Your task to perform on an android device: Search for seafood restaurants on Google Maps Image 0: 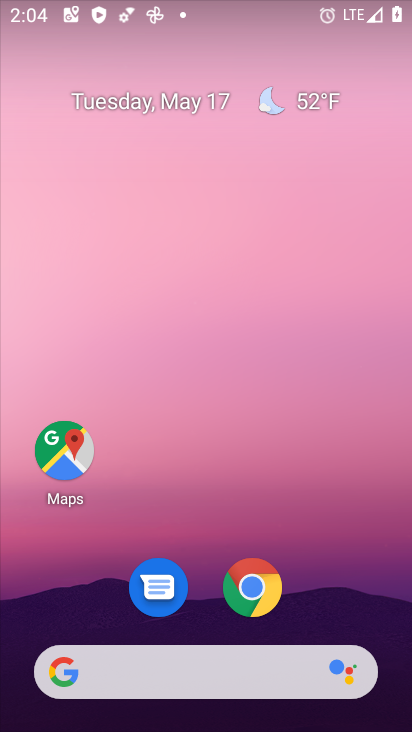
Step 0: click (48, 474)
Your task to perform on an android device: Search for seafood restaurants on Google Maps Image 1: 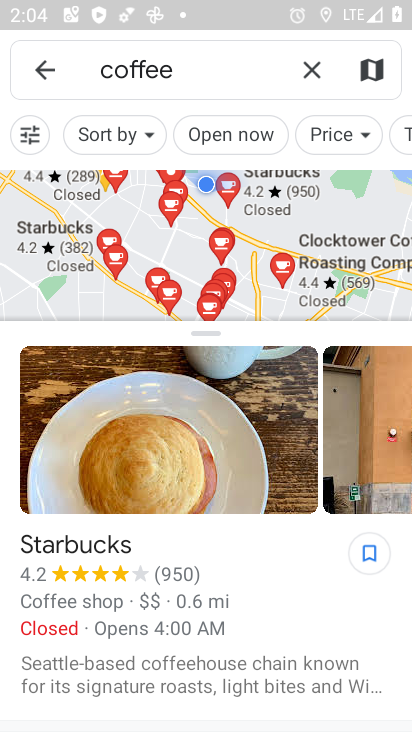
Step 1: click (309, 59)
Your task to perform on an android device: Search for seafood restaurants on Google Maps Image 2: 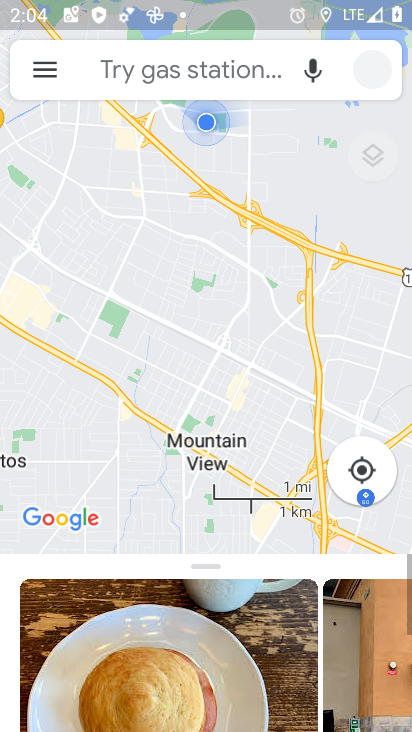
Step 2: click (309, 59)
Your task to perform on an android device: Search for seafood restaurants on Google Maps Image 3: 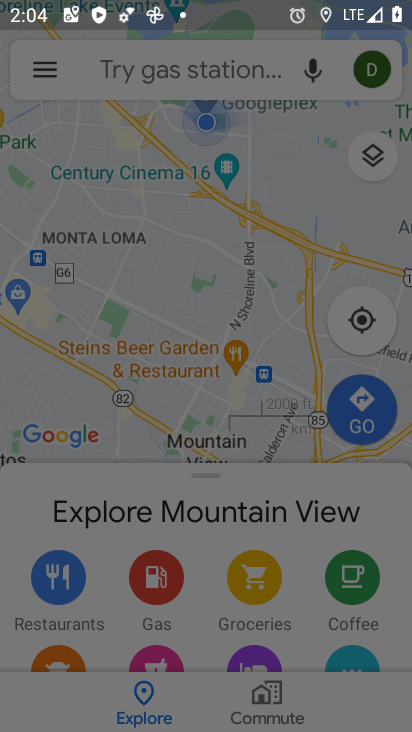
Step 3: click (203, 74)
Your task to perform on an android device: Search for seafood restaurants on Google Maps Image 4: 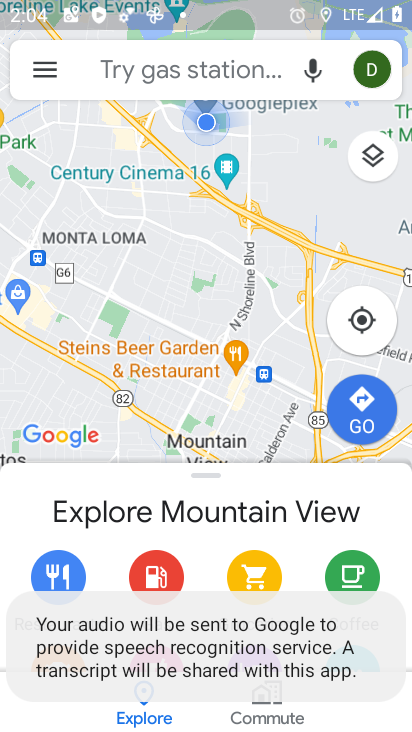
Step 4: click (198, 74)
Your task to perform on an android device: Search for seafood restaurants on Google Maps Image 5: 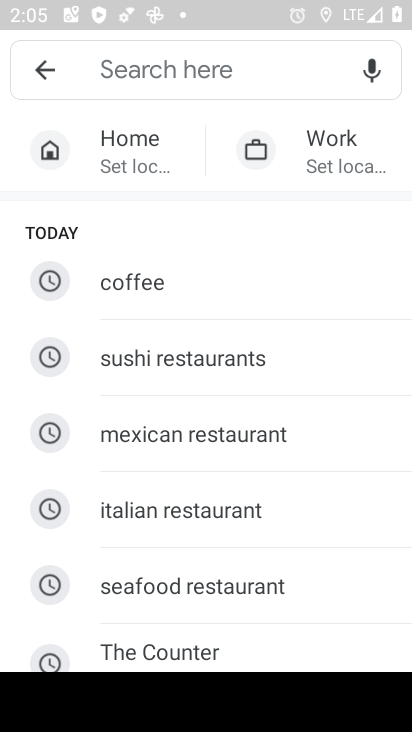
Step 5: click (180, 564)
Your task to perform on an android device: Search for seafood restaurants on Google Maps Image 6: 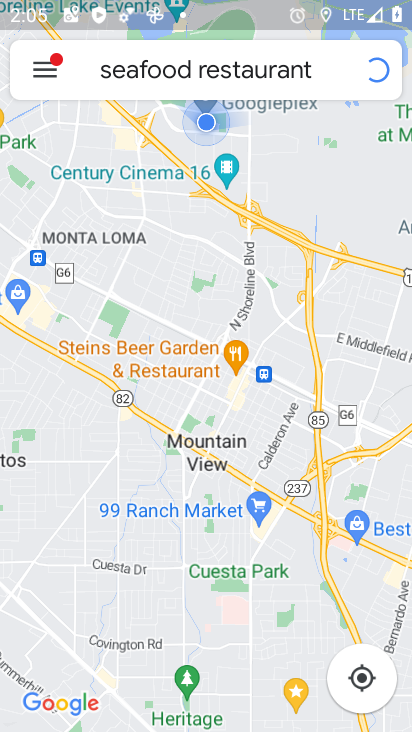
Step 6: task complete